Your task to perform on an android device: turn off airplane mode Image 0: 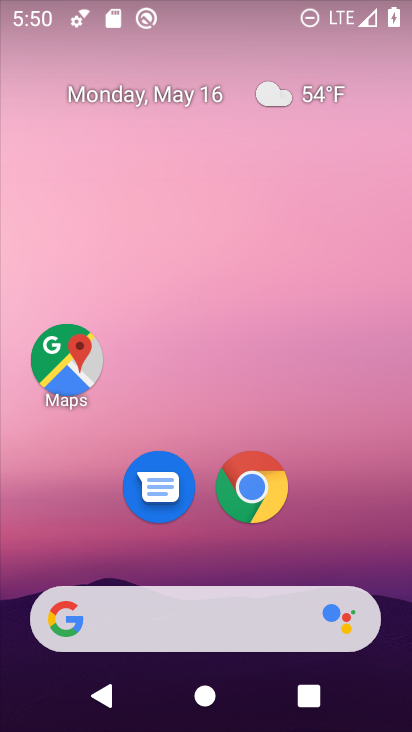
Step 0: press home button
Your task to perform on an android device: turn off airplane mode Image 1: 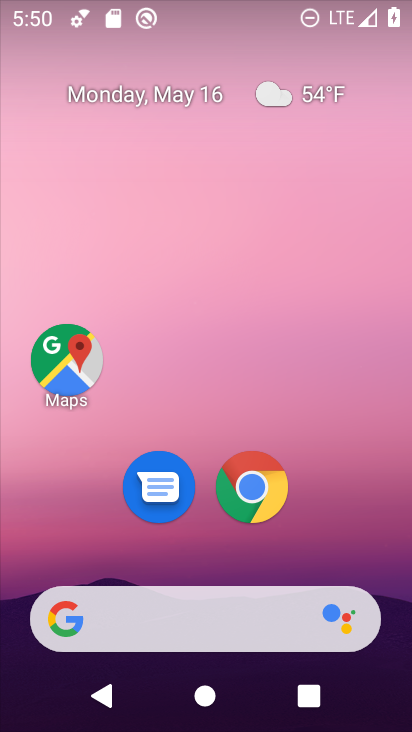
Step 1: drag from (197, 583) to (197, 252)
Your task to perform on an android device: turn off airplane mode Image 2: 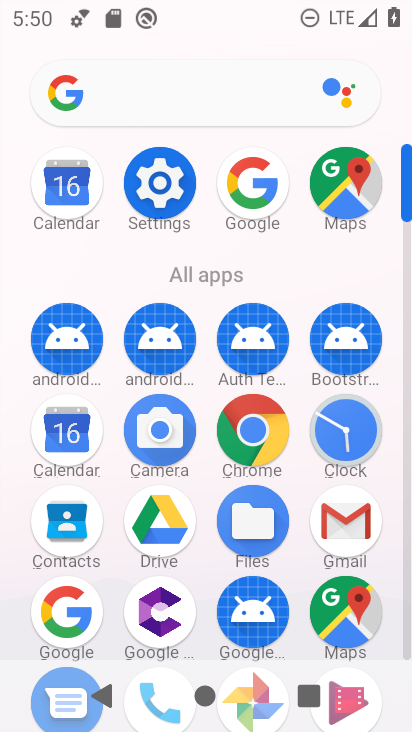
Step 2: click (168, 183)
Your task to perform on an android device: turn off airplane mode Image 3: 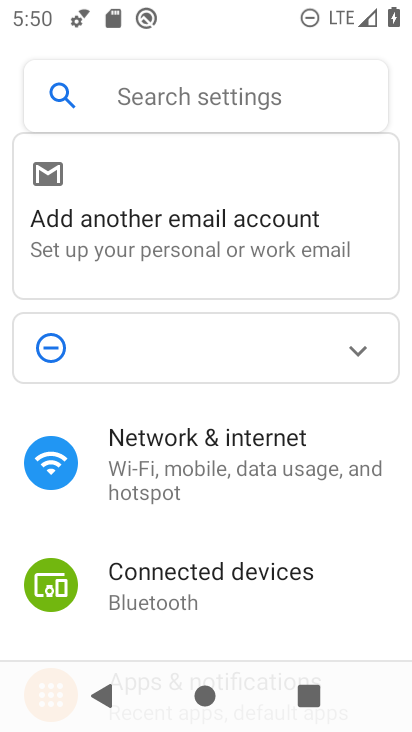
Step 3: click (210, 444)
Your task to perform on an android device: turn off airplane mode Image 4: 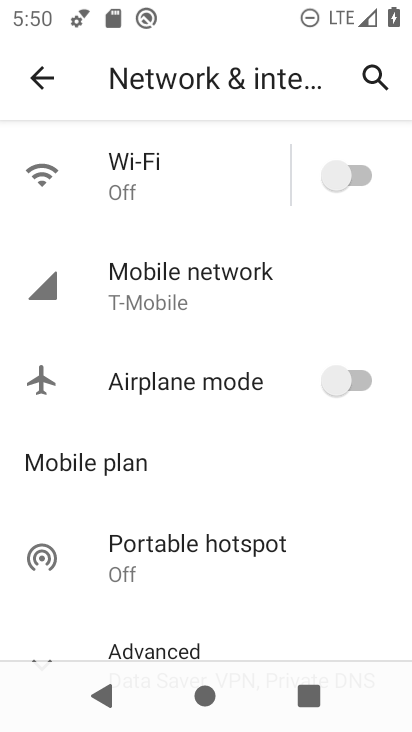
Step 4: click (366, 172)
Your task to perform on an android device: turn off airplane mode Image 5: 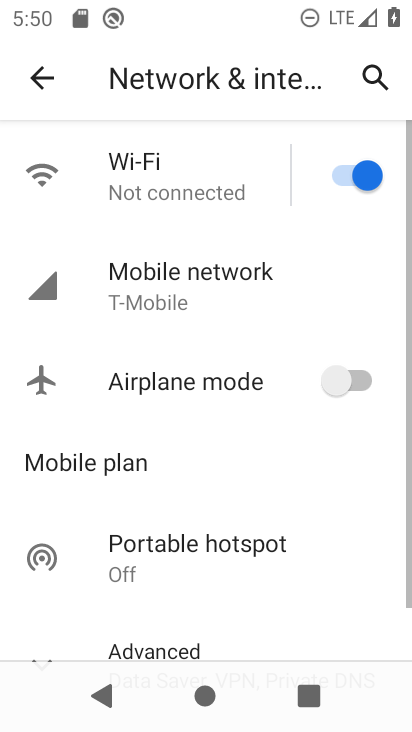
Step 5: click (335, 174)
Your task to perform on an android device: turn off airplane mode Image 6: 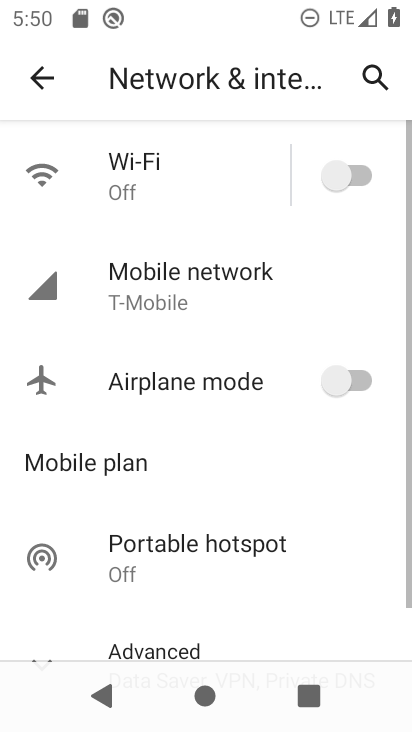
Step 6: task complete